Your task to perform on an android device: turn on wifi Image 0: 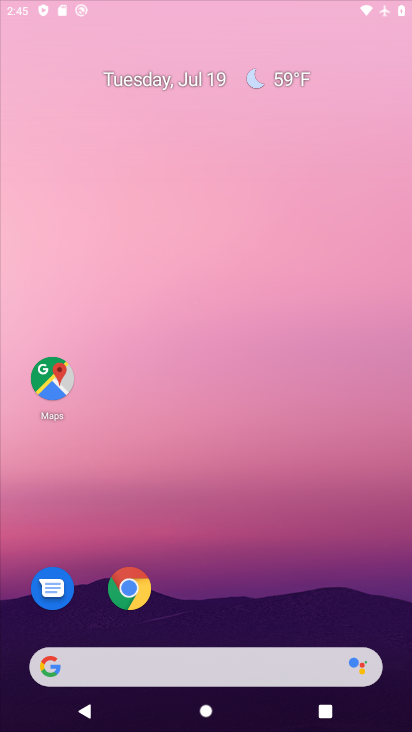
Step 0: press home button
Your task to perform on an android device: turn on wifi Image 1: 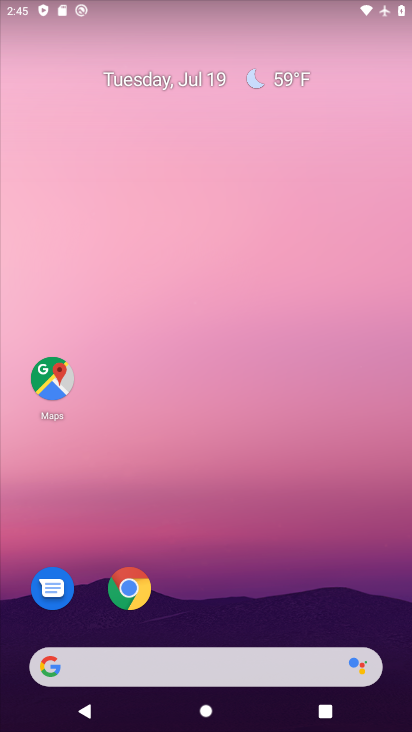
Step 1: task complete